Your task to perform on an android device: What's on my calendar today? Image 0: 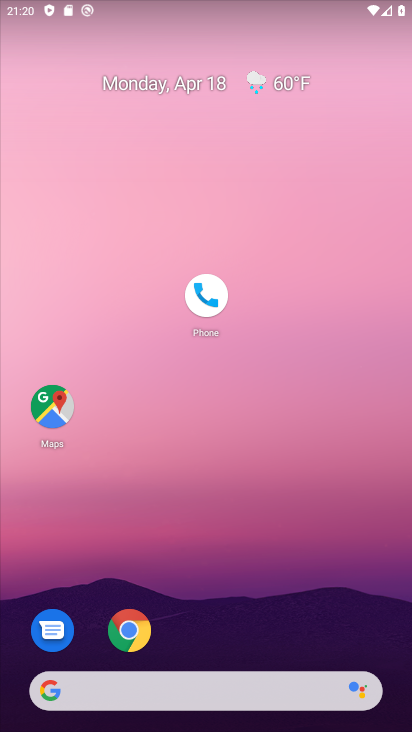
Step 0: press home button
Your task to perform on an android device: What's on my calendar today? Image 1: 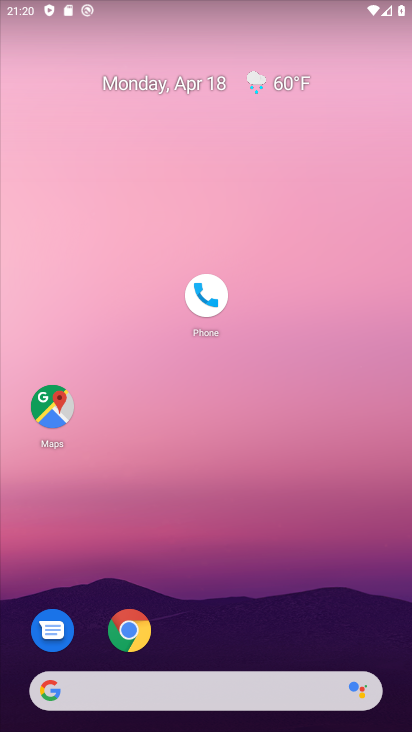
Step 1: drag from (252, 505) to (285, 57)
Your task to perform on an android device: What's on my calendar today? Image 2: 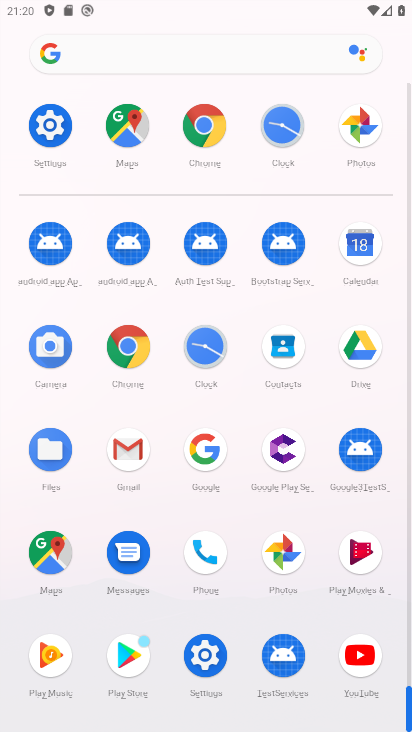
Step 2: click (354, 241)
Your task to perform on an android device: What's on my calendar today? Image 3: 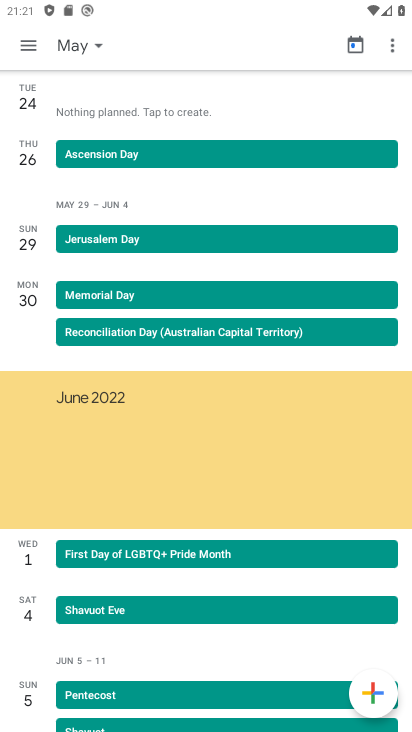
Step 3: click (68, 51)
Your task to perform on an android device: What's on my calendar today? Image 4: 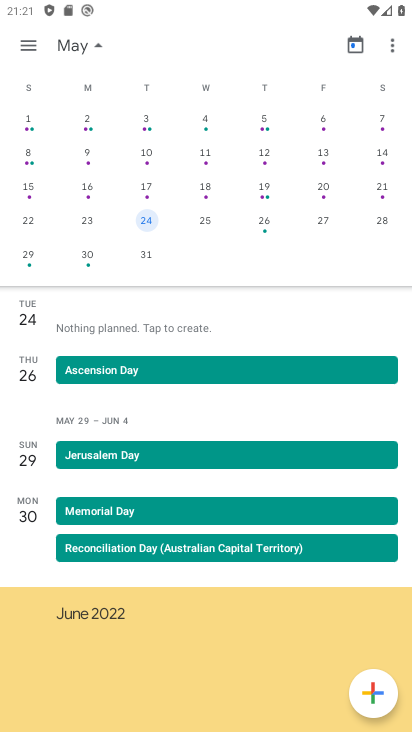
Step 4: drag from (25, 172) to (405, 183)
Your task to perform on an android device: What's on my calendar today? Image 5: 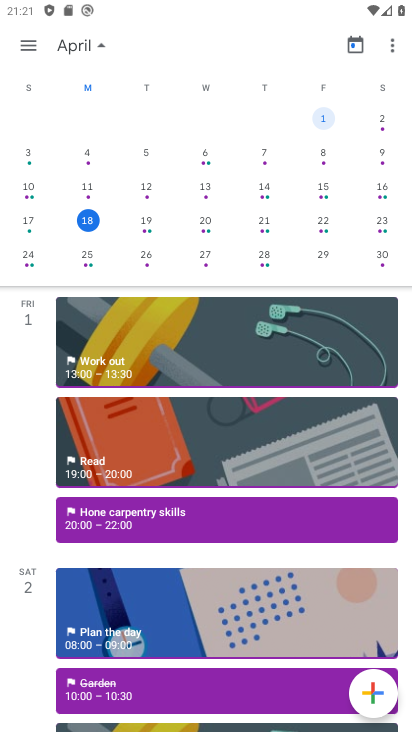
Step 5: click (145, 224)
Your task to perform on an android device: What's on my calendar today? Image 6: 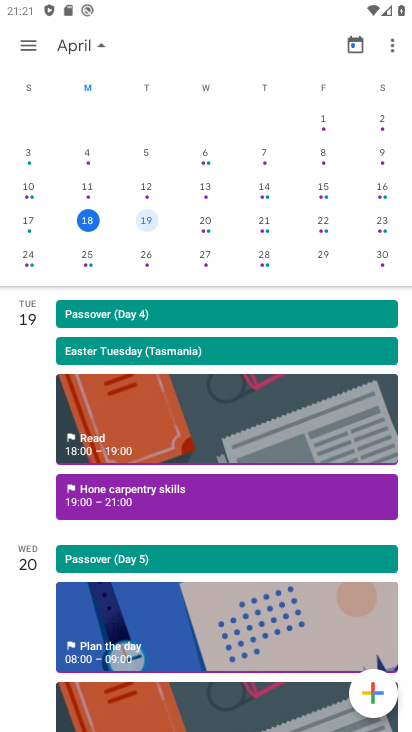
Step 6: click (172, 222)
Your task to perform on an android device: What's on my calendar today? Image 7: 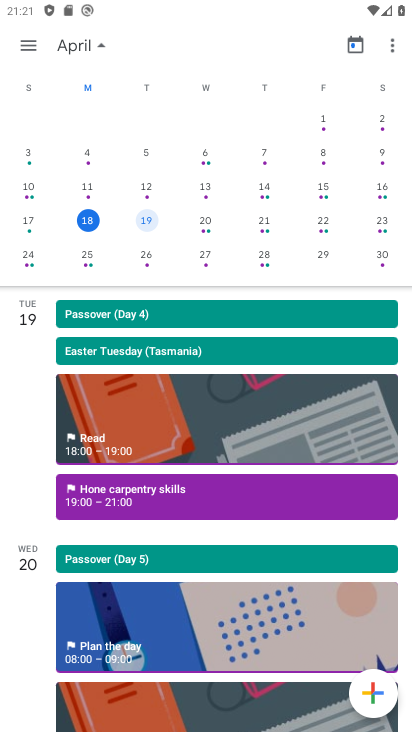
Step 7: click (190, 216)
Your task to perform on an android device: What's on my calendar today? Image 8: 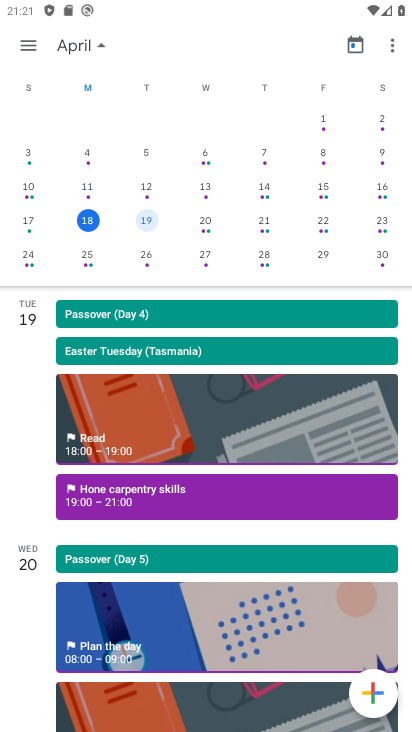
Step 8: click (82, 217)
Your task to perform on an android device: What's on my calendar today? Image 9: 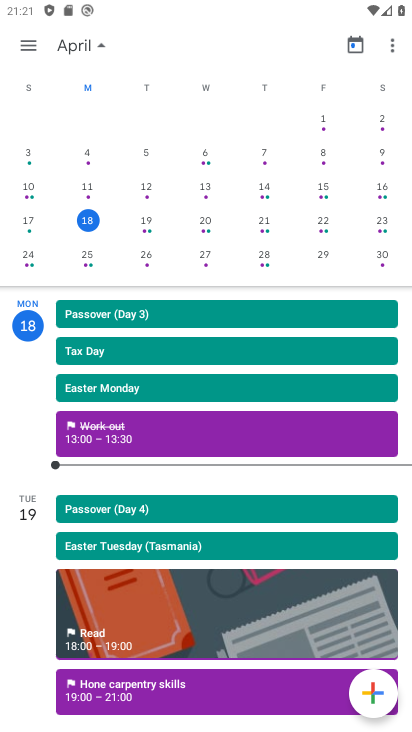
Step 9: click (37, 219)
Your task to perform on an android device: What's on my calendar today? Image 10: 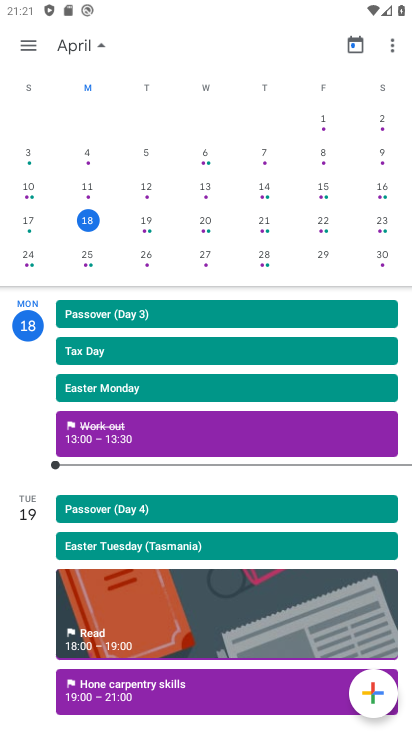
Step 10: click (32, 219)
Your task to perform on an android device: What's on my calendar today? Image 11: 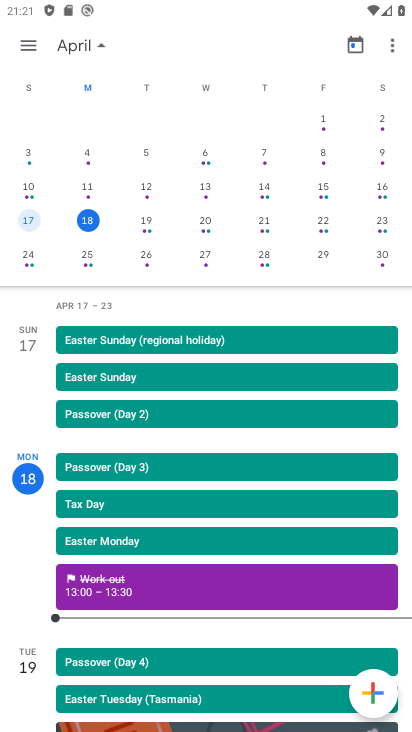
Step 11: click (85, 216)
Your task to perform on an android device: What's on my calendar today? Image 12: 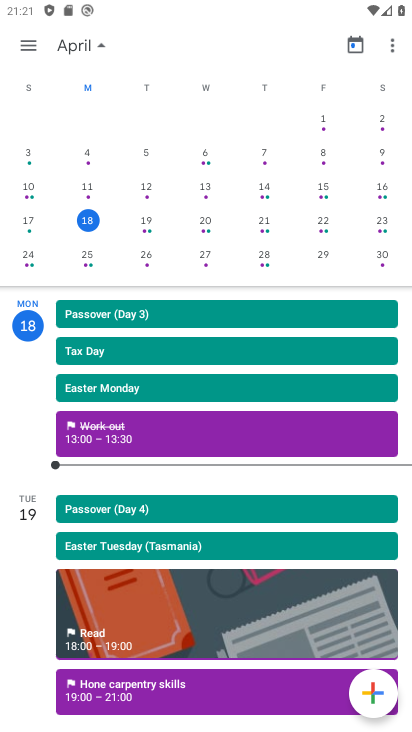
Step 12: task complete